Your task to perform on an android device: Search for Italian restaurants on Maps Image 0: 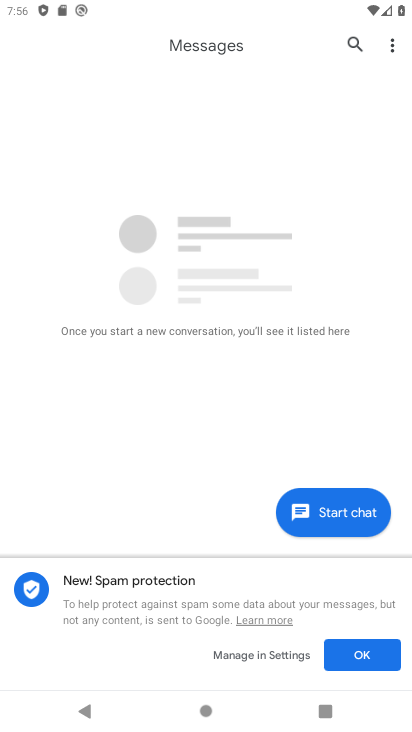
Step 0: press home button
Your task to perform on an android device: Search for Italian restaurants on Maps Image 1: 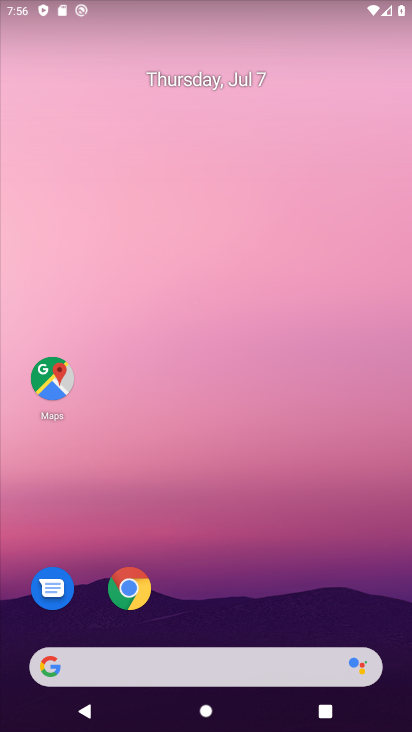
Step 1: click (39, 374)
Your task to perform on an android device: Search for Italian restaurants on Maps Image 2: 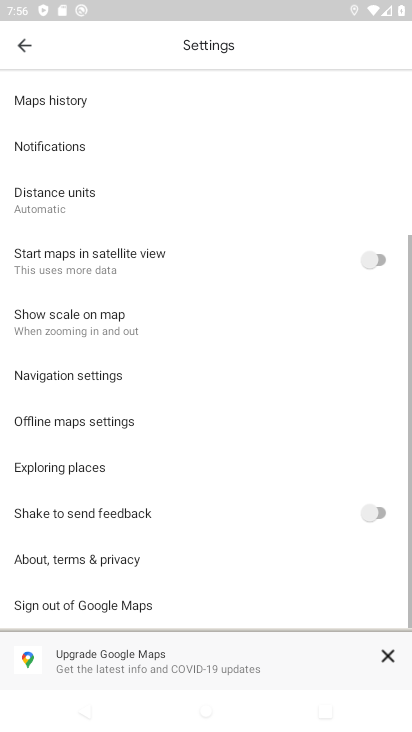
Step 2: click (22, 43)
Your task to perform on an android device: Search for Italian restaurants on Maps Image 3: 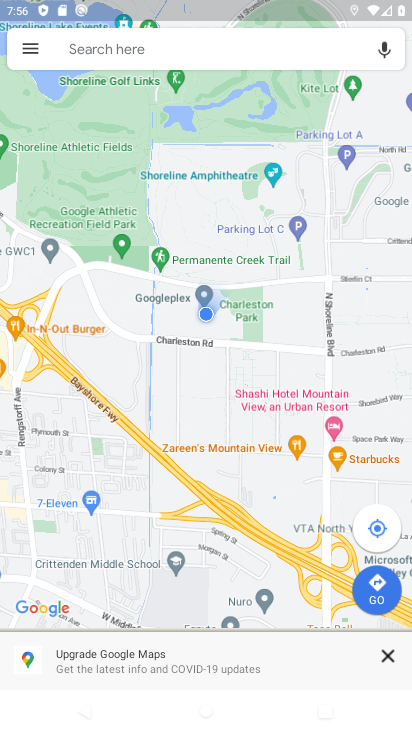
Step 3: click (94, 50)
Your task to perform on an android device: Search for Italian restaurants on Maps Image 4: 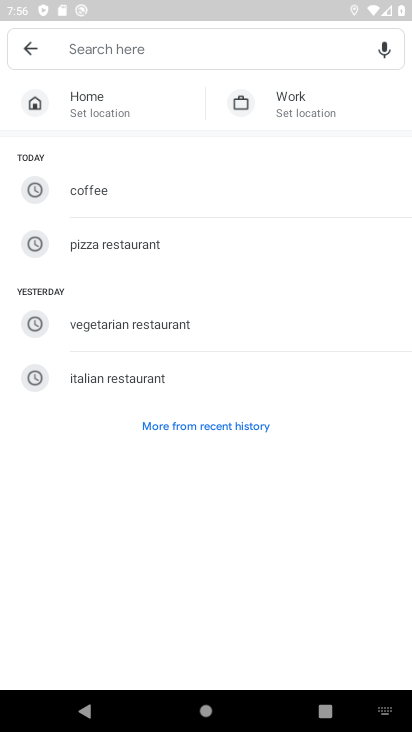
Step 4: type "Italian restaurants "
Your task to perform on an android device: Search for Italian restaurants on Maps Image 5: 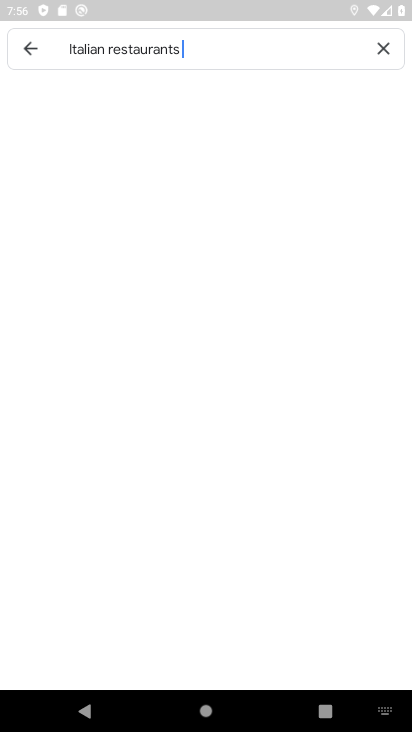
Step 5: type ""
Your task to perform on an android device: Search for Italian restaurants on Maps Image 6: 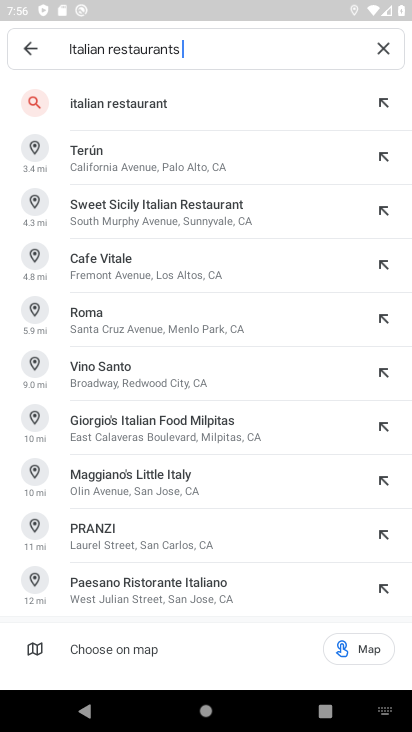
Step 6: click (132, 107)
Your task to perform on an android device: Search for Italian restaurants on Maps Image 7: 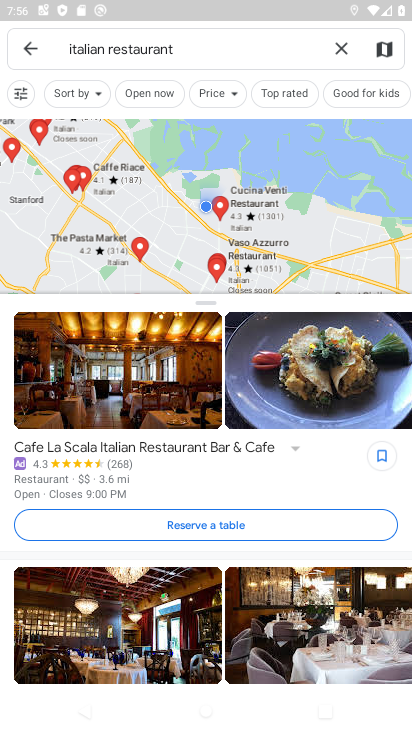
Step 7: task complete